Your task to perform on an android device: empty trash in google photos Image 0: 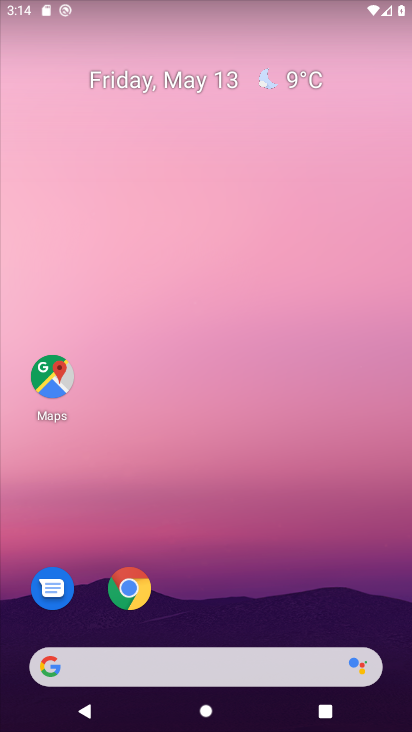
Step 0: drag from (298, 592) to (202, 126)
Your task to perform on an android device: empty trash in google photos Image 1: 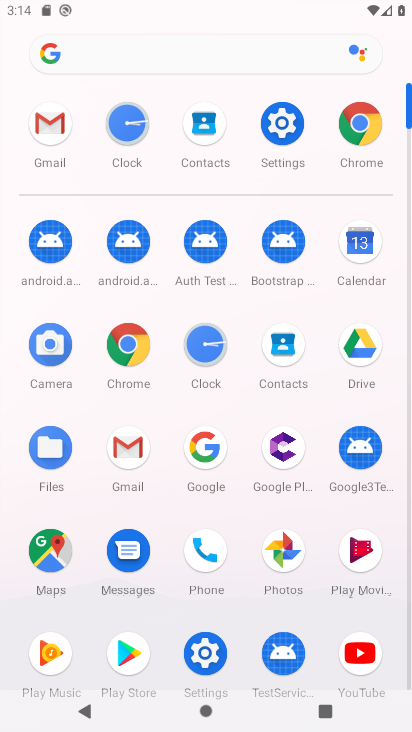
Step 1: click (269, 547)
Your task to perform on an android device: empty trash in google photos Image 2: 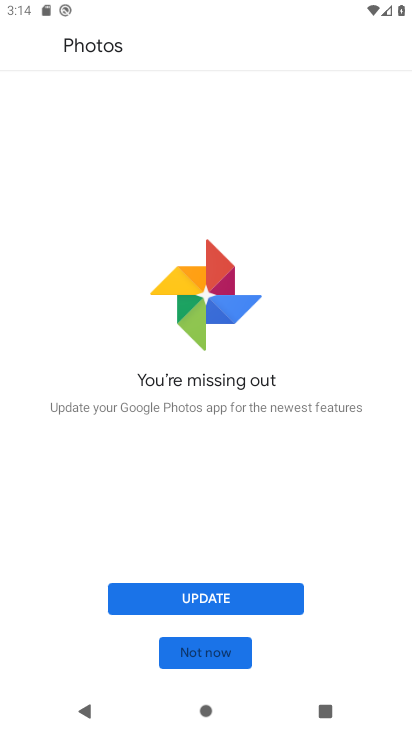
Step 2: click (223, 661)
Your task to perform on an android device: empty trash in google photos Image 3: 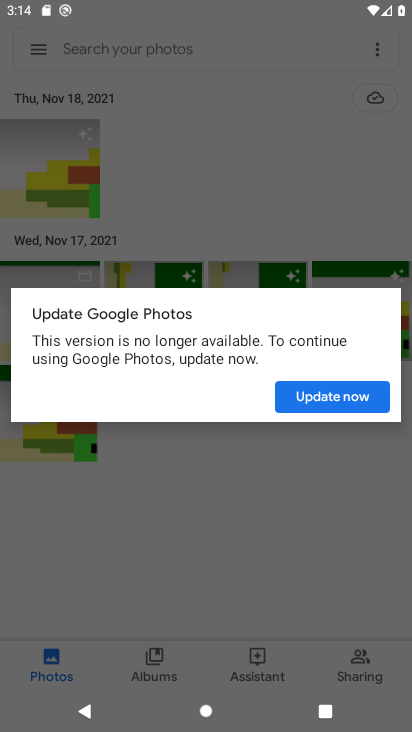
Step 3: click (315, 391)
Your task to perform on an android device: empty trash in google photos Image 4: 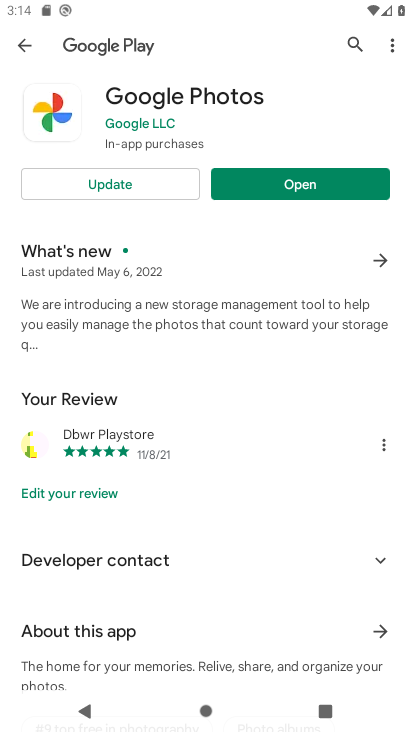
Step 4: click (305, 178)
Your task to perform on an android device: empty trash in google photos Image 5: 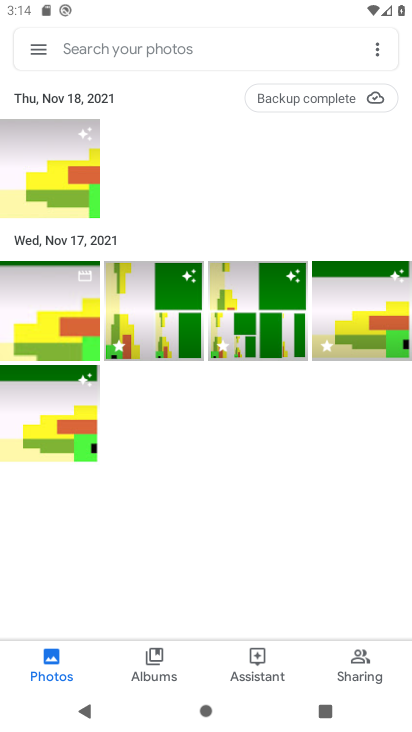
Step 5: click (50, 54)
Your task to perform on an android device: empty trash in google photos Image 6: 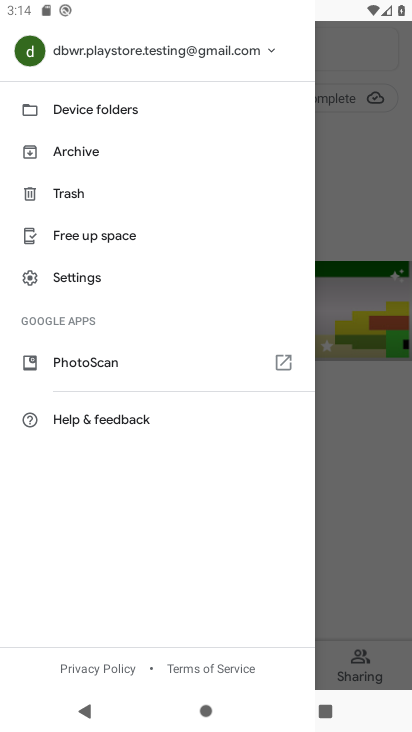
Step 6: click (89, 192)
Your task to perform on an android device: empty trash in google photos Image 7: 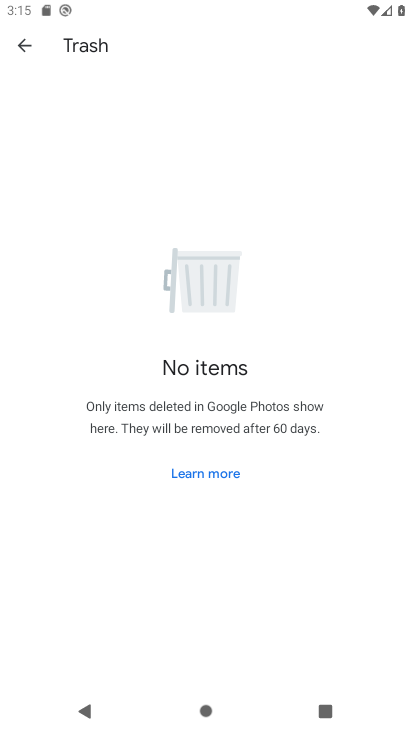
Step 7: task complete